Your task to perform on an android device: manage bookmarks in the chrome app Image 0: 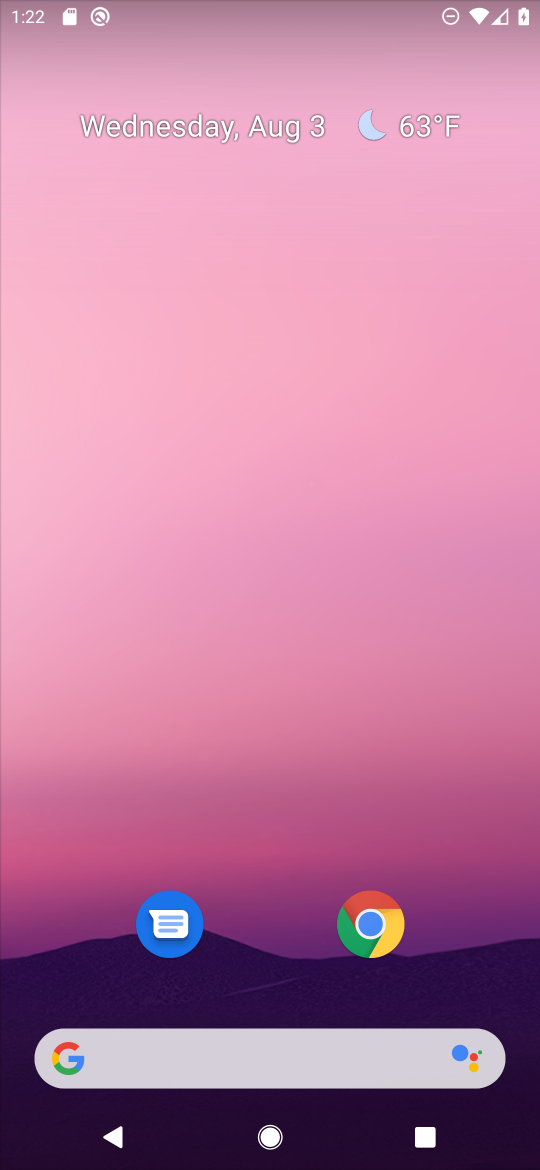
Step 0: click (367, 921)
Your task to perform on an android device: manage bookmarks in the chrome app Image 1: 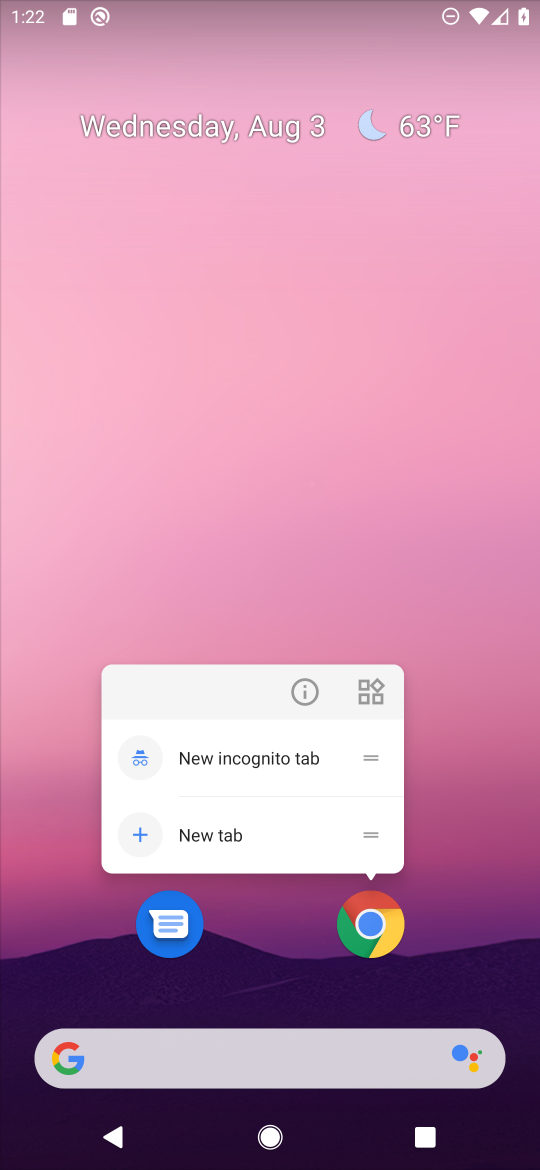
Step 1: click (390, 927)
Your task to perform on an android device: manage bookmarks in the chrome app Image 2: 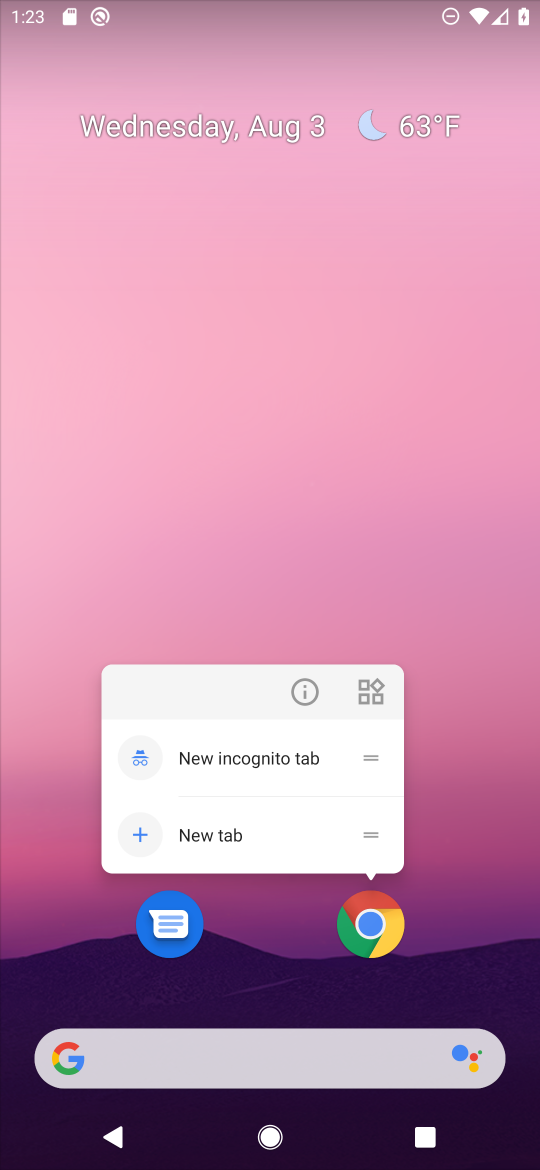
Step 2: click (376, 952)
Your task to perform on an android device: manage bookmarks in the chrome app Image 3: 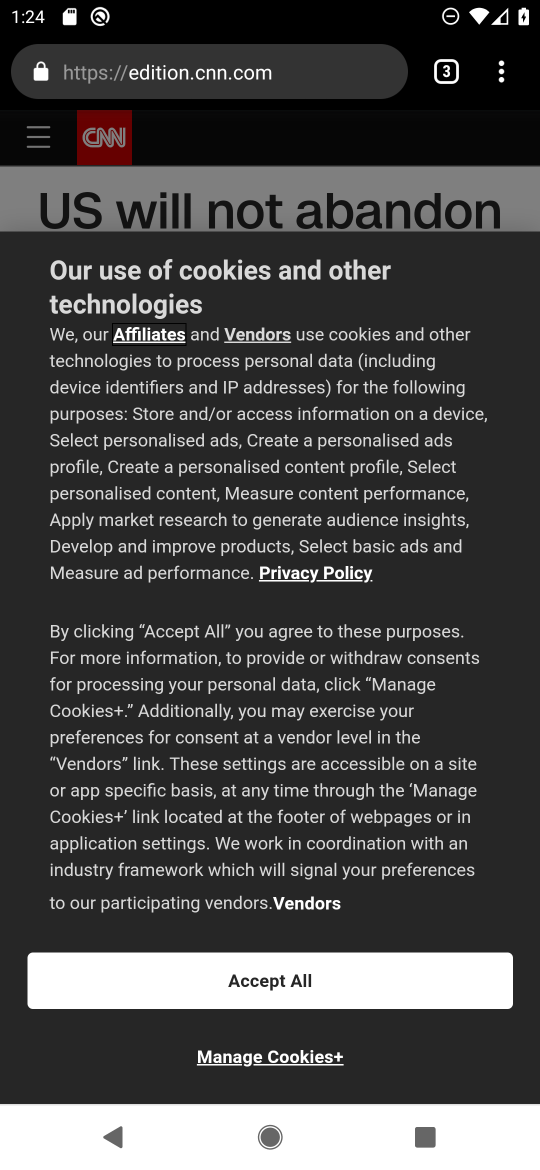
Step 3: drag from (504, 71) to (234, 280)
Your task to perform on an android device: manage bookmarks in the chrome app Image 4: 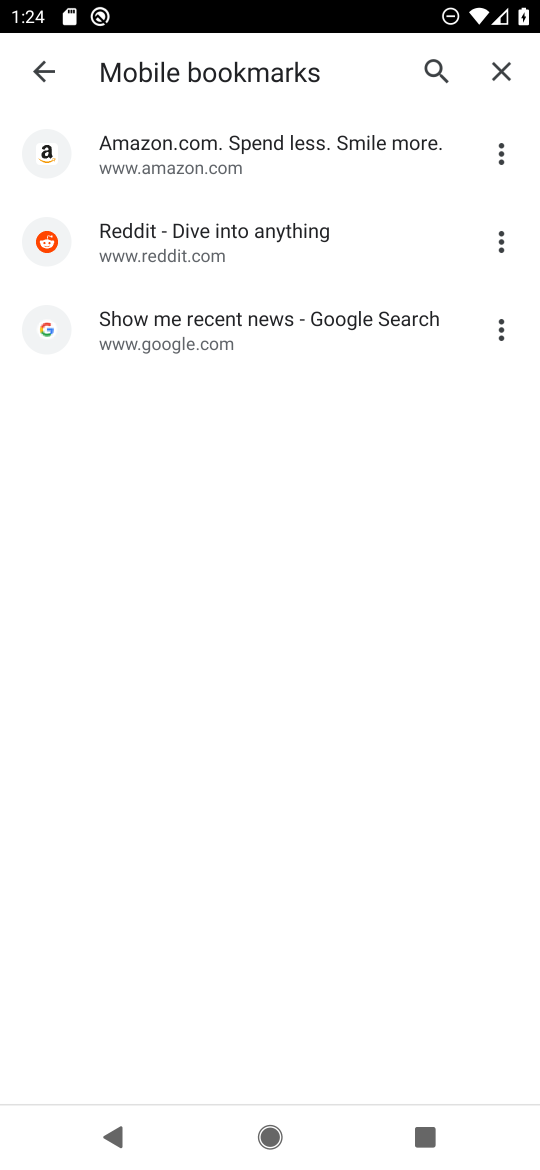
Step 4: click (498, 237)
Your task to perform on an android device: manage bookmarks in the chrome app Image 5: 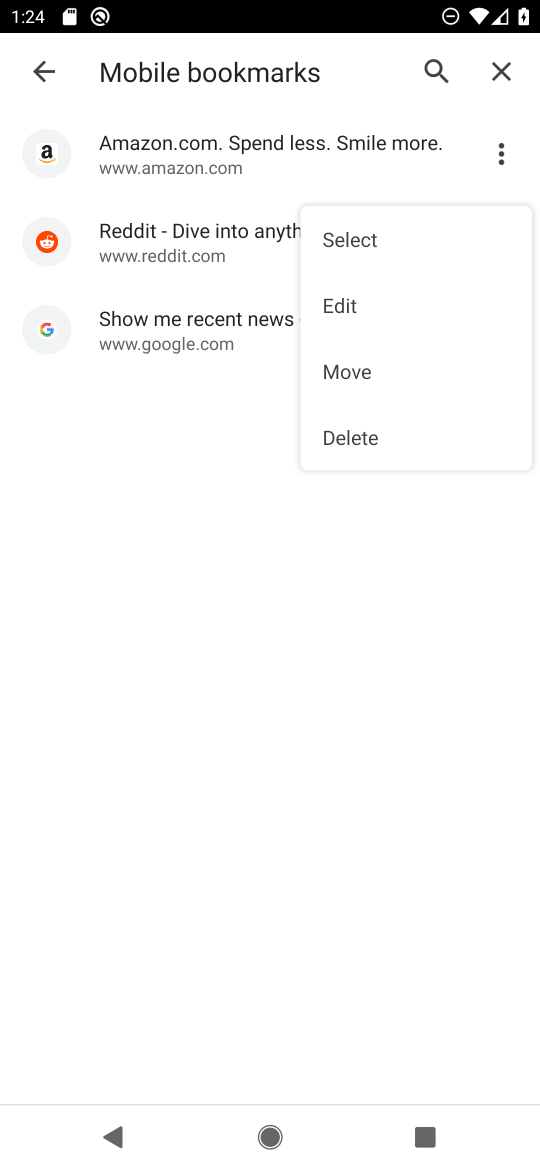
Step 5: click (363, 440)
Your task to perform on an android device: manage bookmarks in the chrome app Image 6: 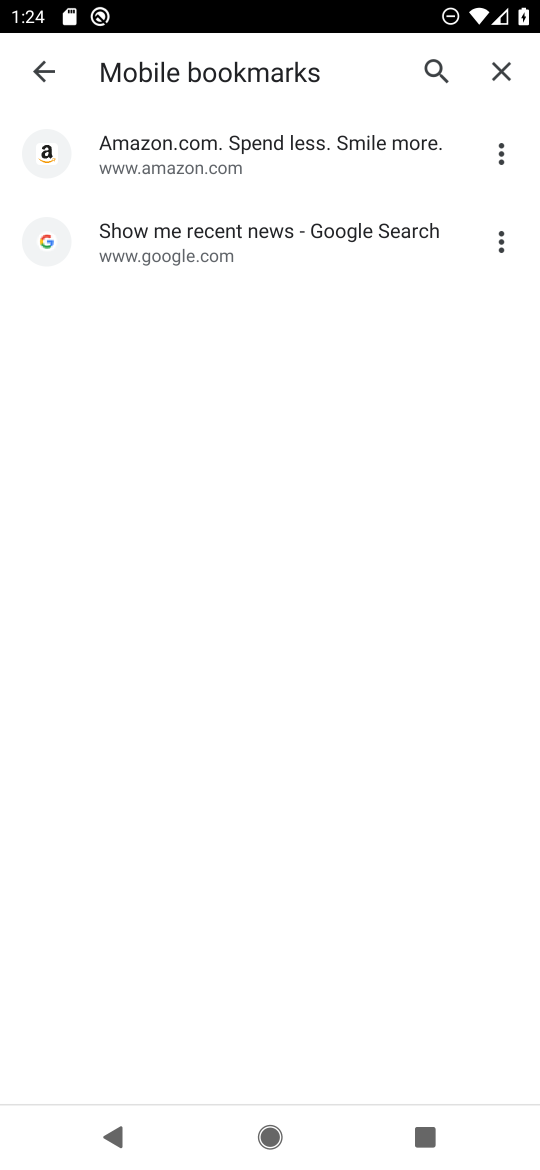
Step 6: task complete